Your task to perform on an android device: turn off airplane mode Image 0: 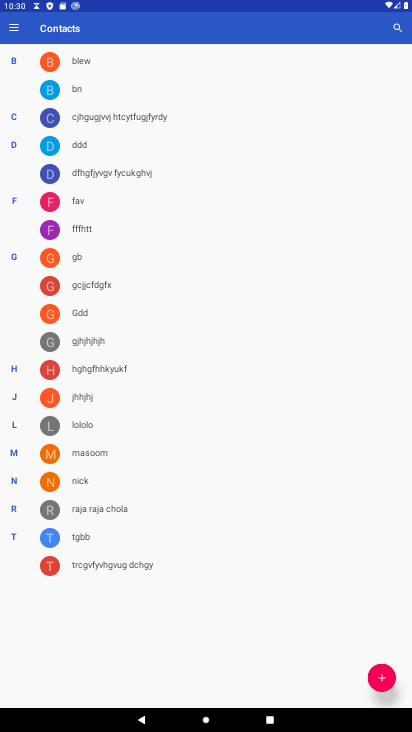
Step 0: press home button
Your task to perform on an android device: turn off airplane mode Image 1: 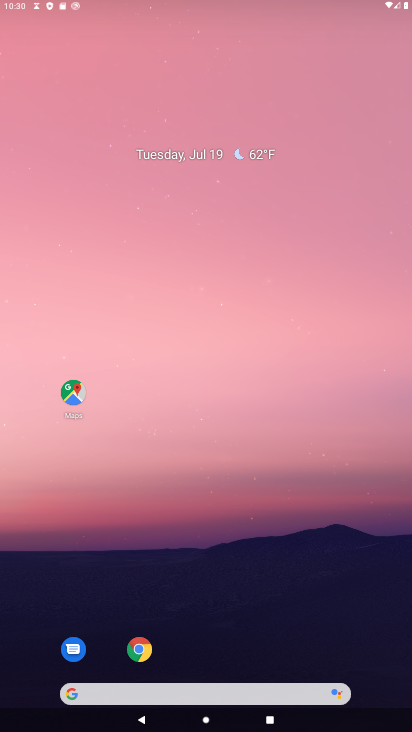
Step 1: task complete